Your task to perform on an android device: toggle wifi Image 0: 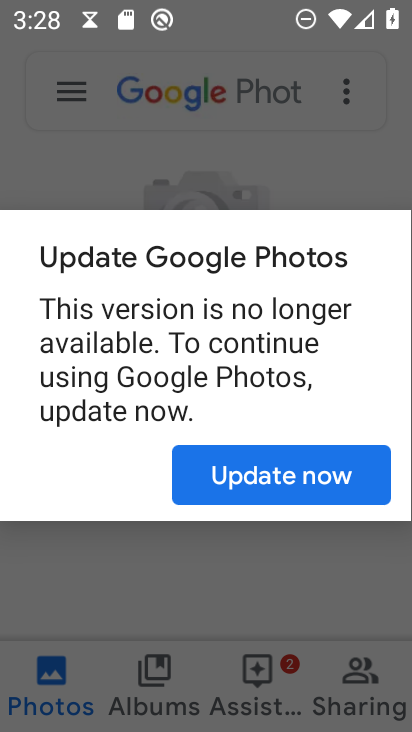
Step 0: press home button
Your task to perform on an android device: toggle wifi Image 1: 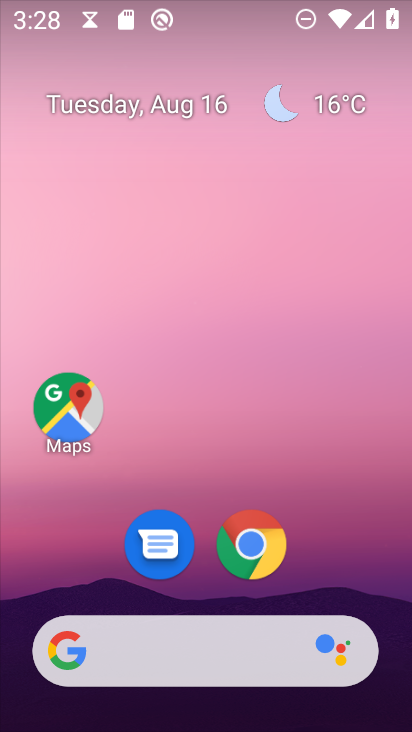
Step 1: drag from (198, 657) to (180, 48)
Your task to perform on an android device: toggle wifi Image 2: 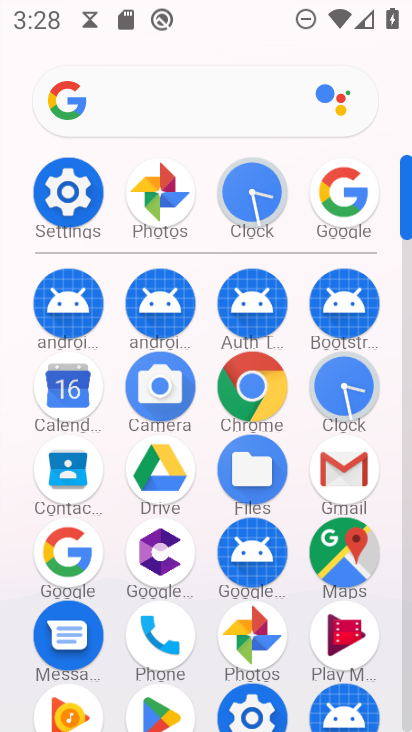
Step 2: click (68, 191)
Your task to perform on an android device: toggle wifi Image 3: 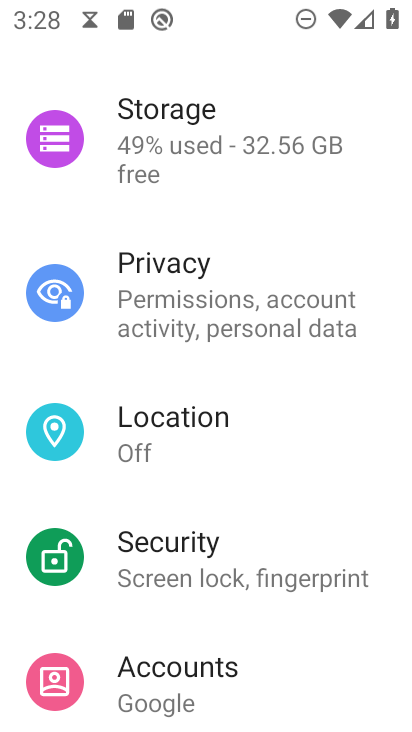
Step 3: drag from (191, 197) to (236, 369)
Your task to perform on an android device: toggle wifi Image 4: 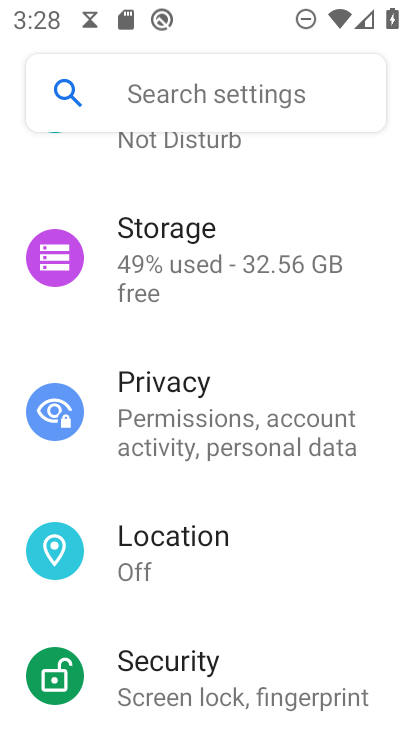
Step 4: drag from (247, 171) to (270, 458)
Your task to perform on an android device: toggle wifi Image 5: 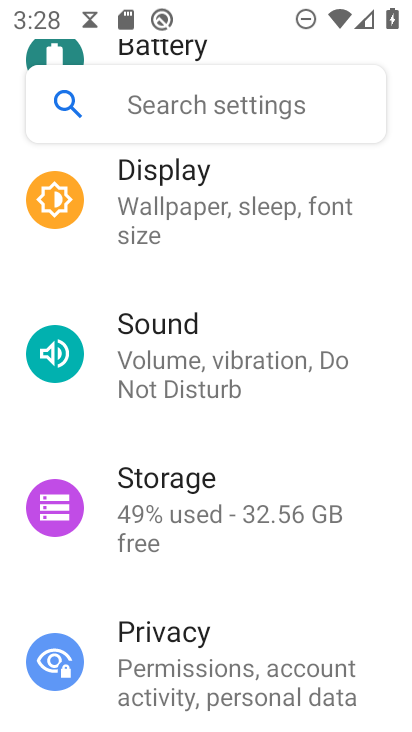
Step 5: drag from (225, 282) to (263, 486)
Your task to perform on an android device: toggle wifi Image 6: 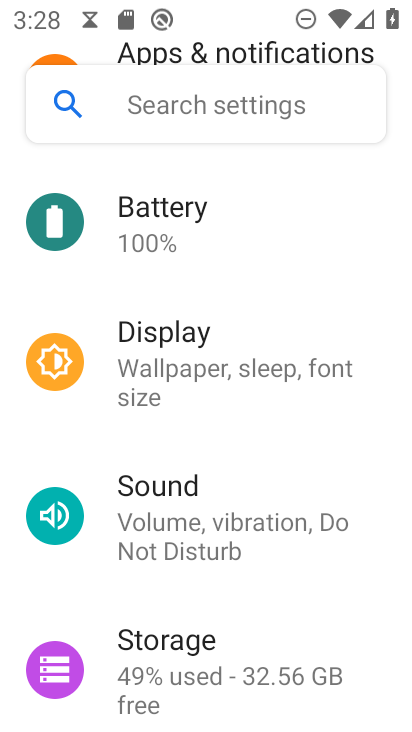
Step 6: drag from (239, 256) to (275, 479)
Your task to perform on an android device: toggle wifi Image 7: 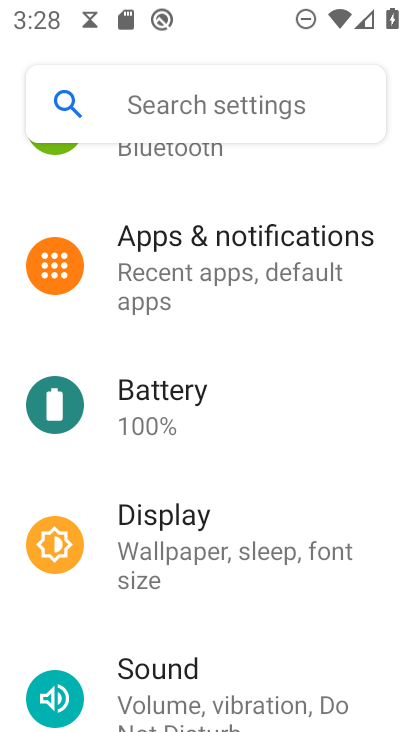
Step 7: drag from (236, 339) to (287, 524)
Your task to perform on an android device: toggle wifi Image 8: 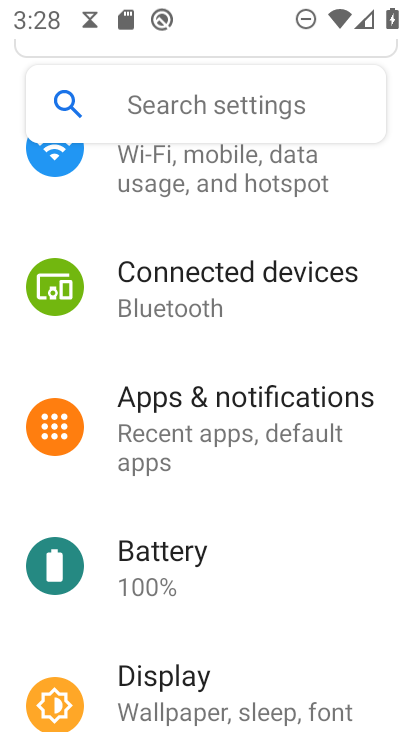
Step 8: drag from (261, 325) to (259, 561)
Your task to perform on an android device: toggle wifi Image 9: 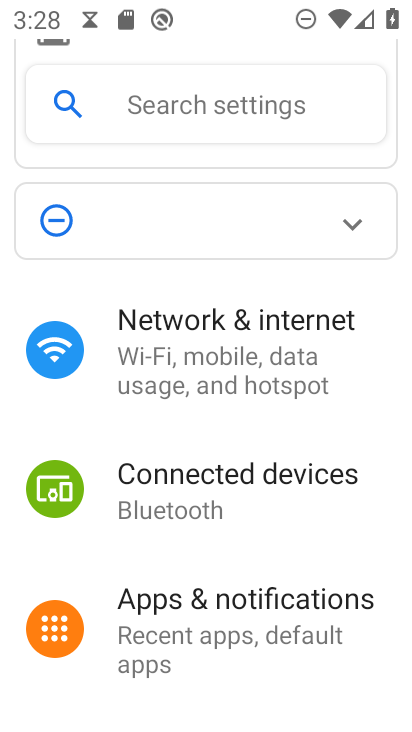
Step 9: click (223, 315)
Your task to perform on an android device: toggle wifi Image 10: 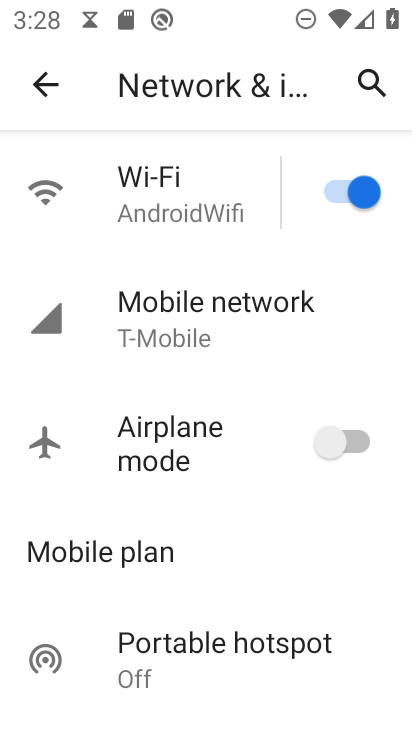
Step 10: click (358, 201)
Your task to perform on an android device: toggle wifi Image 11: 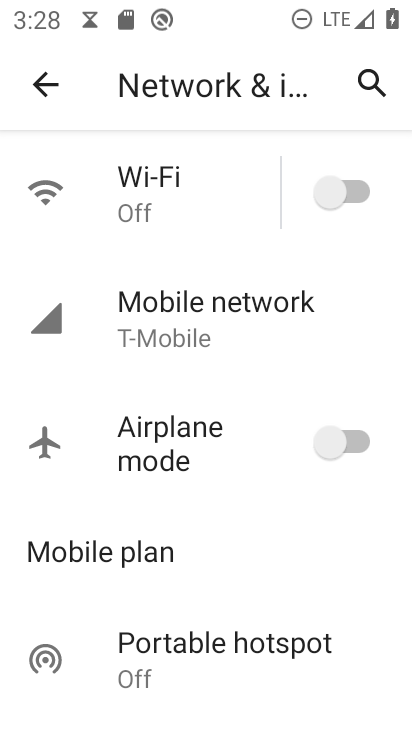
Step 11: task complete